Your task to perform on an android device: turn on location history Image 0: 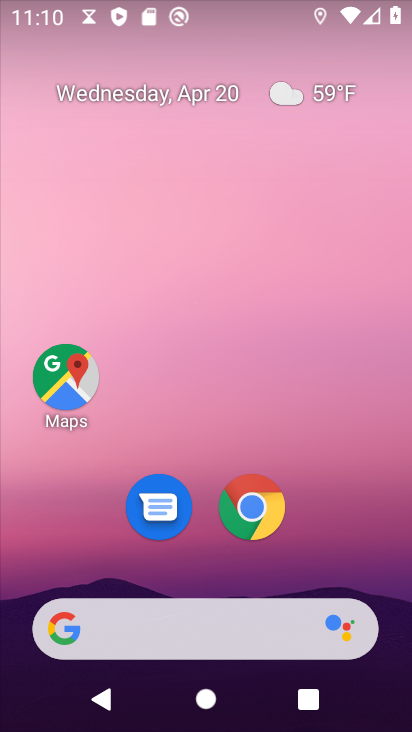
Step 0: drag from (254, 638) to (319, 188)
Your task to perform on an android device: turn on location history Image 1: 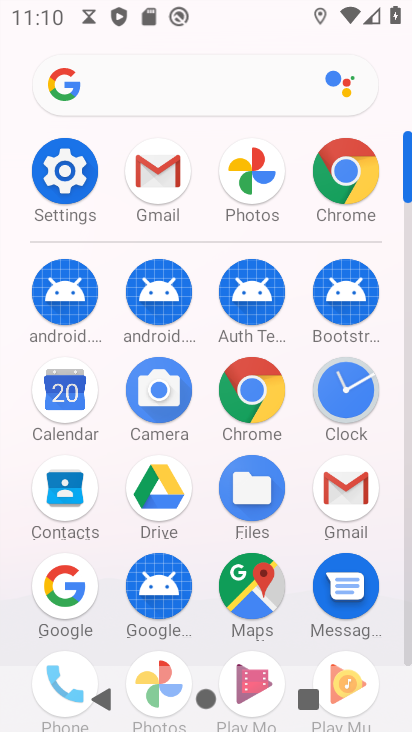
Step 1: click (56, 181)
Your task to perform on an android device: turn on location history Image 2: 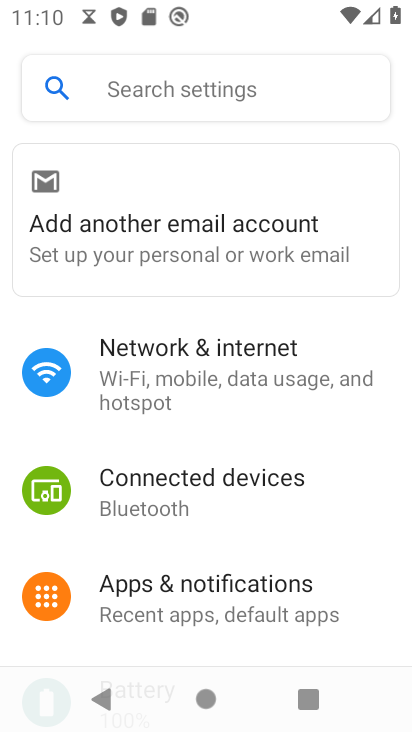
Step 2: click (126, 86)
Your task to perform on an android device: turn on location history Image 3: 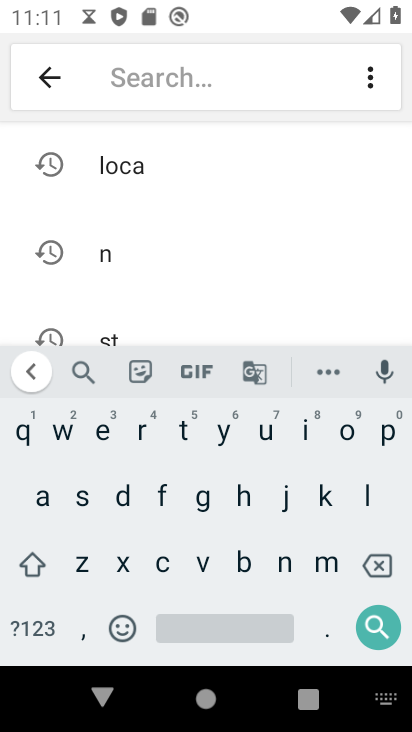
Step 3: click (160, 173)
Your task to perform on an android device: turn on location history Image 4: 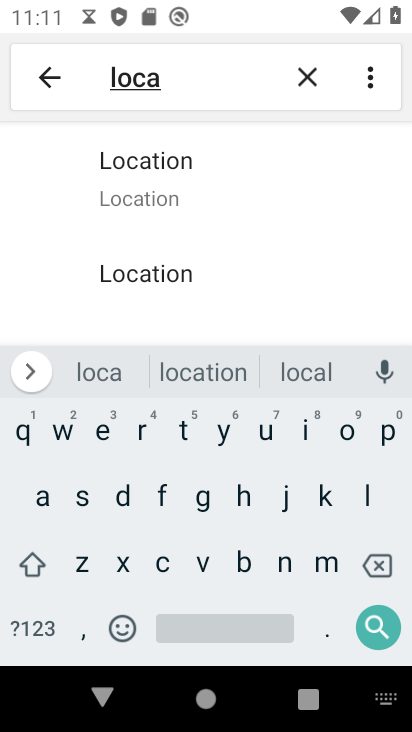
Step 4: click (168, 194)
Your task to perform on an android device: turn on location history Image 5: 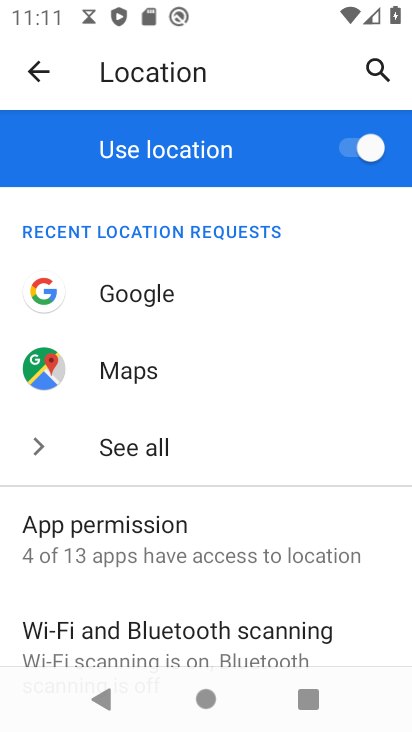
Step 5: drag from (133, 594) to (265, 311)
Your task to perform on an android device: turn on location history Image 6: 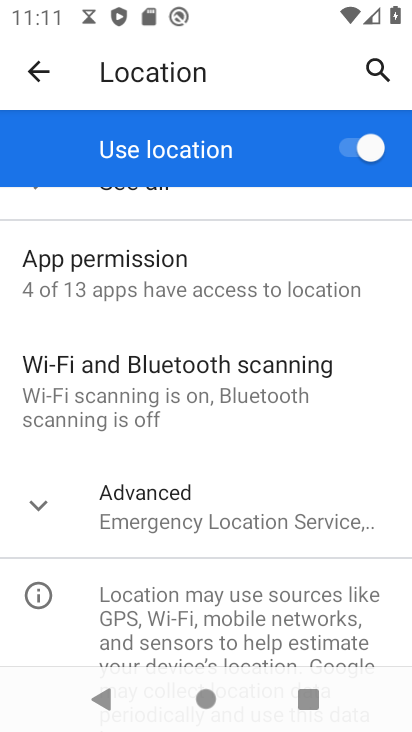
Step 6: click (163, 502)
Your task to perform on an android device: turn on location history Image 7: 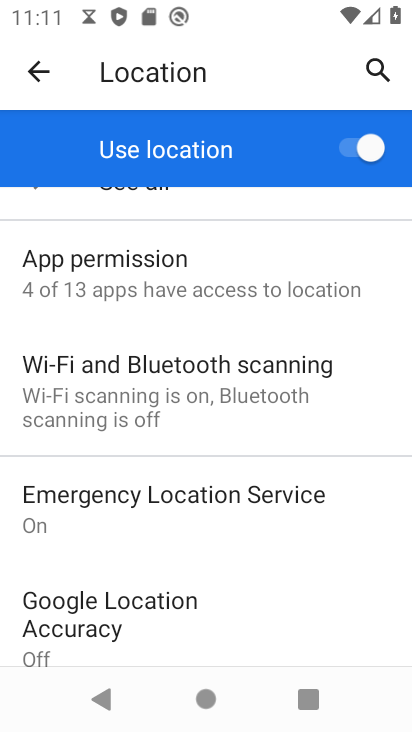
Step 7: drag from (188, 558) to (267, 394)
Your task to perform on an android device: turn on location history Image 8: 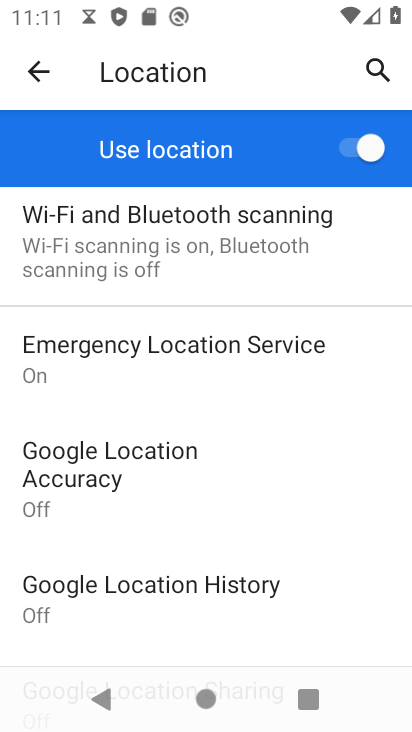
Step 8: click (197, 571)
Your task to perform on an android device: turn on location history Image 9: 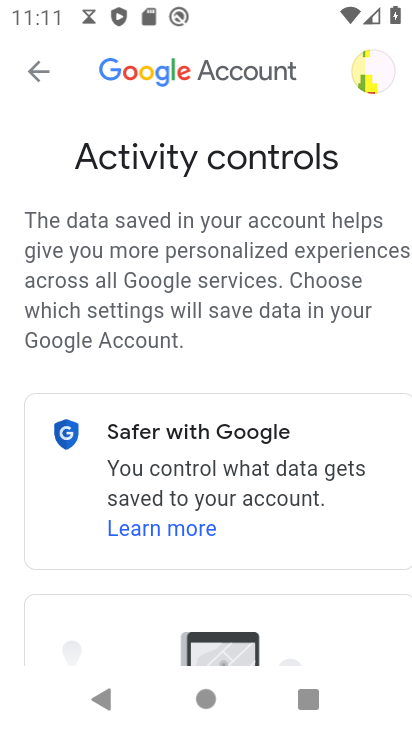
Step 9: drag from (271, 581) to (312, 316)
Your task to perform on an android device: turn on location history Image 10: 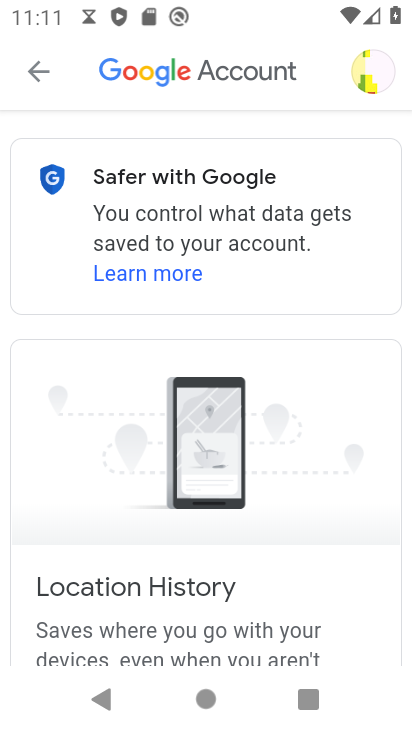
Step 10: drag from (253, 540) to (365, 204)
Your task to perform on an android device: turn on location history Image 11: 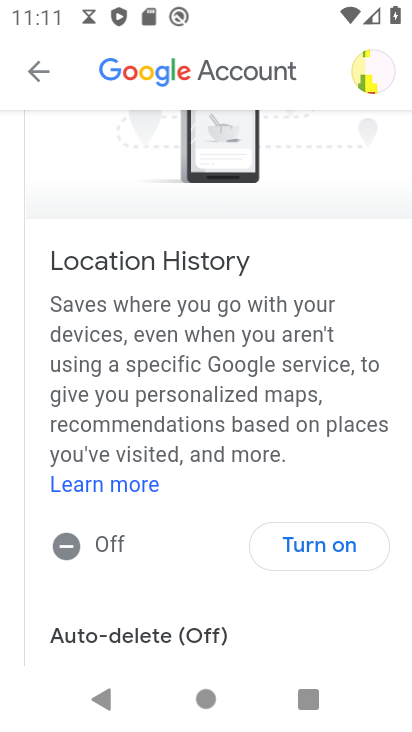
Step 11: click (299, 534)
Your task to perform on an android device: turn on location history Image 12: 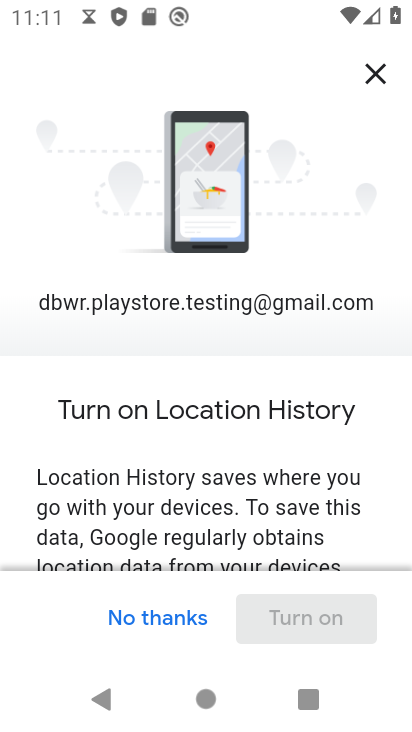
Step 12: task complete